Your task to perform on an android device: Open Google Chrome and click the shortcut for Amazon.com Image 0: 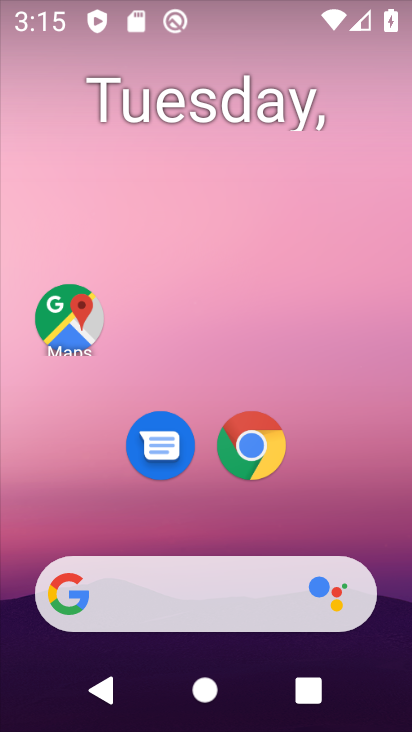
Step 0: click (241, 455)
Your task to perform on an android device: Open Google Chrome and click the shortcut for Amazon.com Image 1: 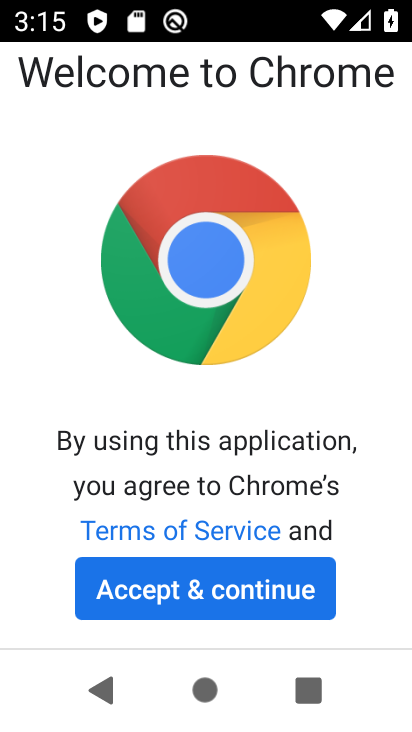
Step 1: click (182, 580)
Your task to perform on an android device: Open Google Chrome and click the shortcut for Amazon.com Image 2: 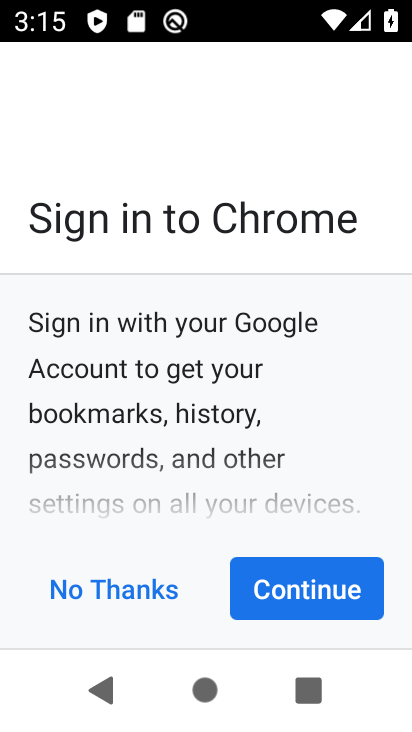
Step 2: click (347, 601)
Your task to perform on an android device: Open Google Chrome and click the shortcut for Amazon.com Image 3: 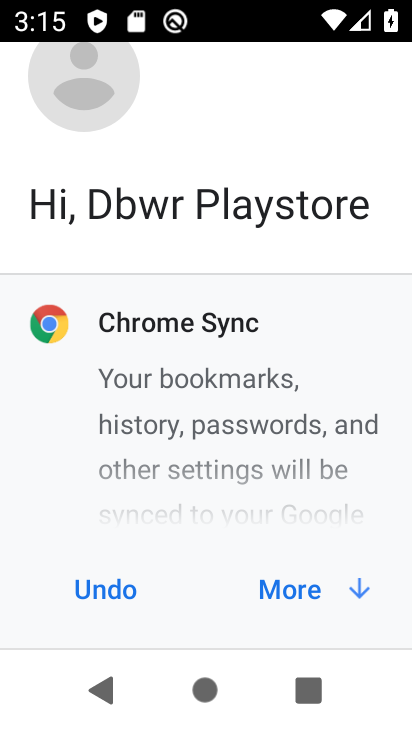
Step 3: click (328, 589)
Your task to perform on an android device: Open Google Chrome and click the shortcut for Amazon.com Image 4: 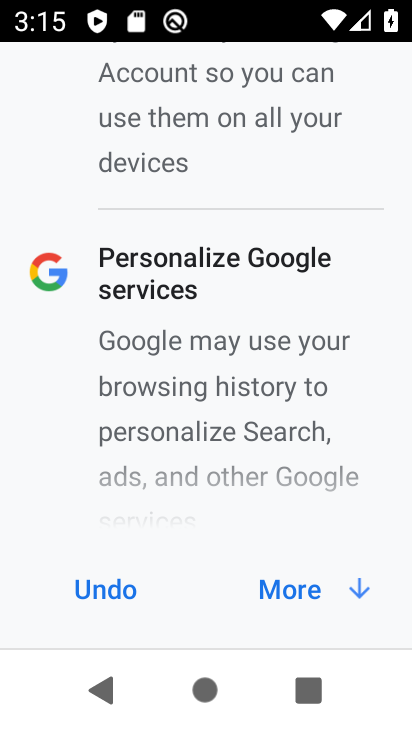
Step 4: click (340, 590)
Your task to perform on an android device: Open Google Chrome and click the shortcut for Amazon.com Image 5: 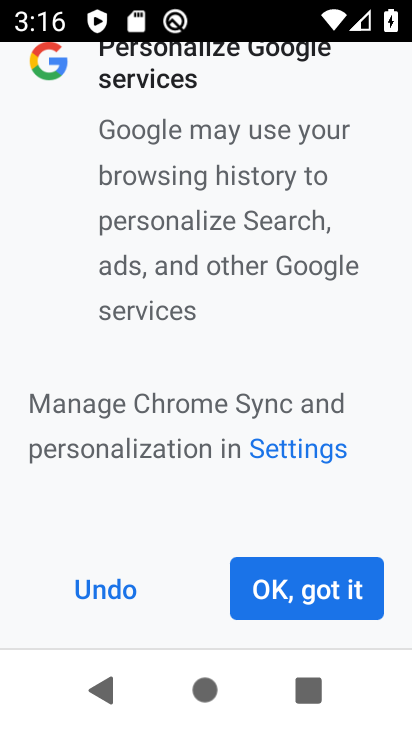
Step 5: click (337, 591)
Your task to perform on an android device: Open Google Chrome and click the shortcut for Amazon.com Image 6: 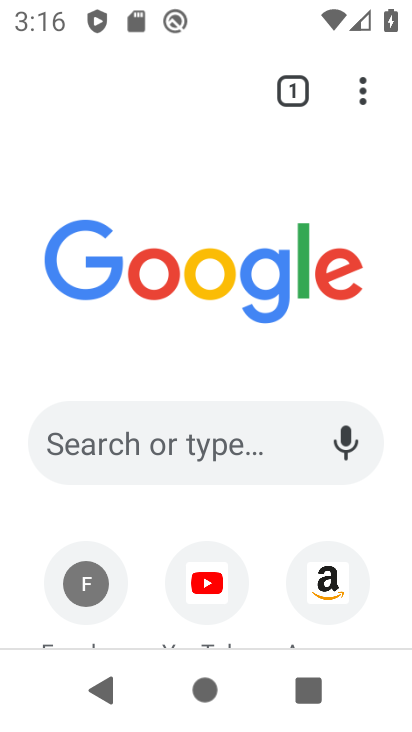
Step 6: click (313, 588)
Your task to perform on an android device: Open Google Chrome and click the shortcut for Amazon.com Image 7: 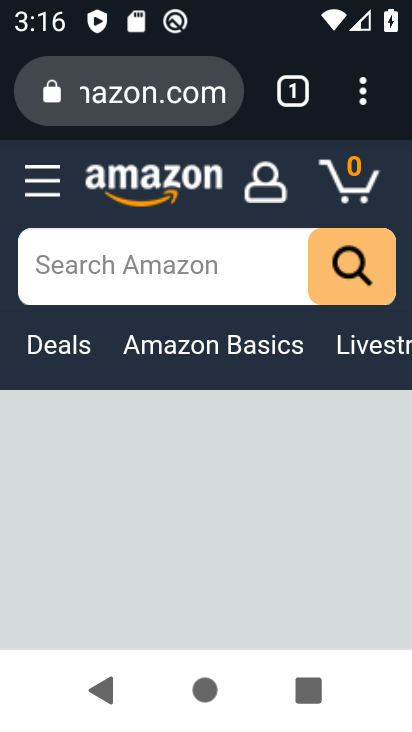
Step 7: task complete